Your task to perform on an android device: manage bookmarks in the chrome app Image 0: 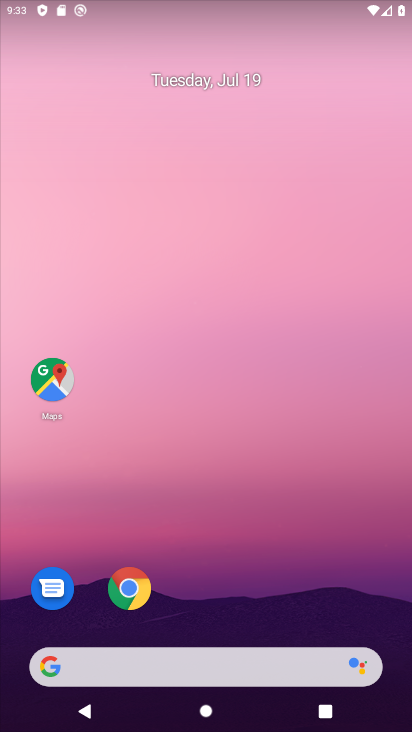
Step 0: drag from (227, 566) to (218, 111)
Your task to perform on an android device: manage bookmarks in the chrome app Image 1: 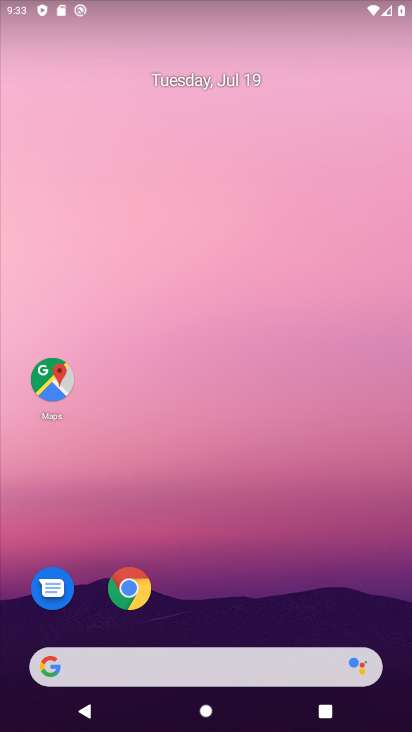
Step 1: drag from (214, 430) to (201, 89)
Your task to perform on an android device: manage bookmarks in the chrome app Image 2: 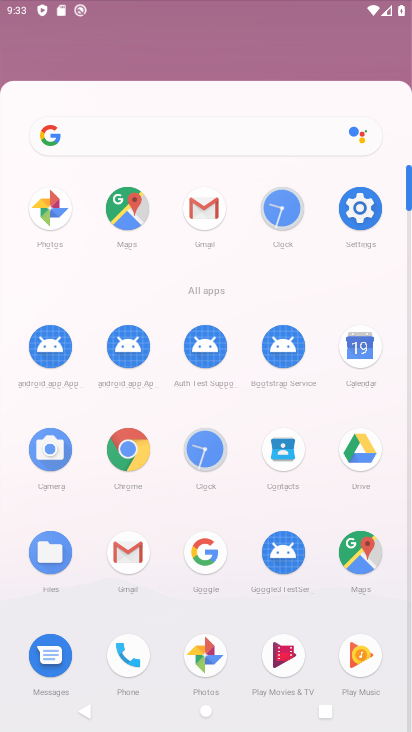
Step 2: drag from (212, 369) to (204, 18)
Your task to perform on an android device: manage bookmarks in the chrome app Image 3: 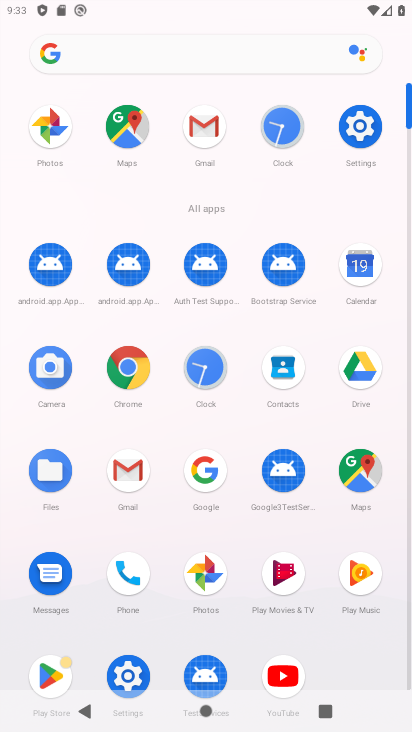
Step 3: click (127, 356)
Your task to perform on an android device: manage bookmarks in the chrome app Image 4: 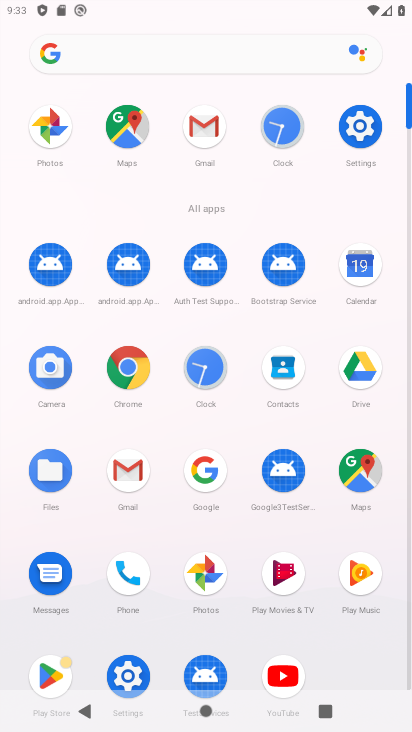
Step 4: click (130, 361)
Your task to perform on an android device: manage bookmarks in the chrome app Image 5: 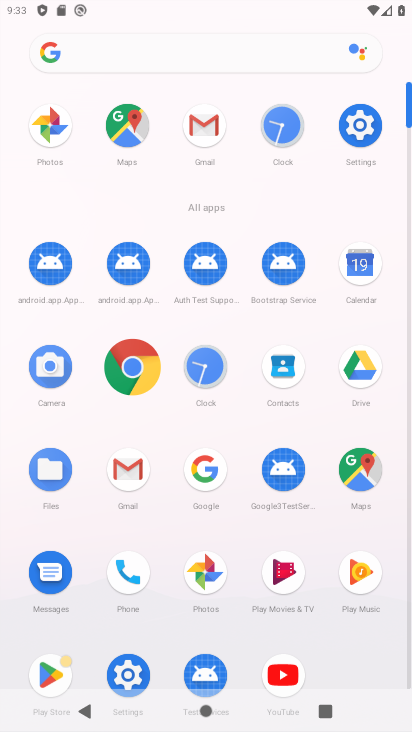
Step 5: click (134, 365)
Your task to perform on an android device: manage bookmarks in the chrome app Image 6: 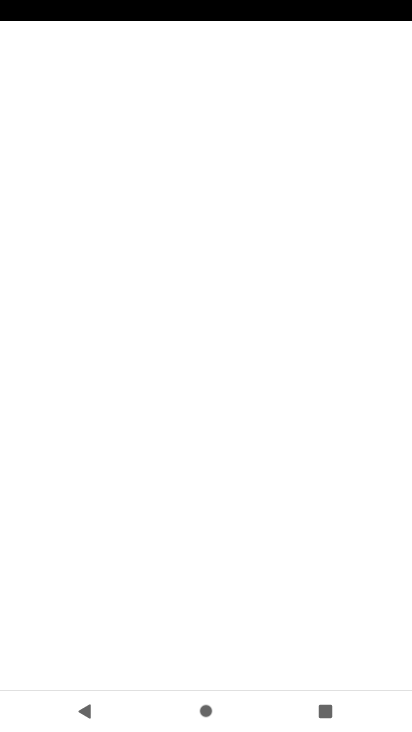
Step 6: click (139, 366)
Your task to perform on an android device: manage bookmarks in the chrome app Image 7: 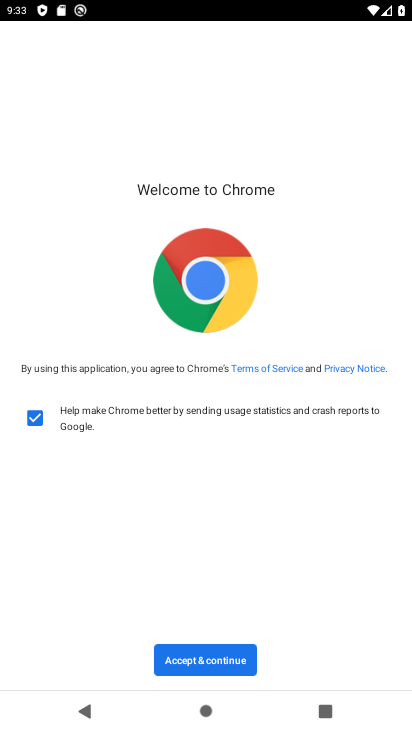
Step 7: click (213, 659)
Your task to perform on an android device: manage bookmarks in the chrome app Image 8: 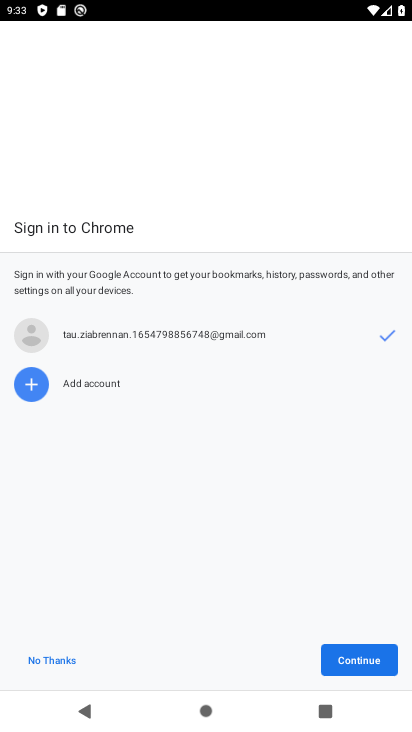
Step 8: click (368, 669)
Your task to perform on an android device: manage bookmarks in the chrome app Image 9: 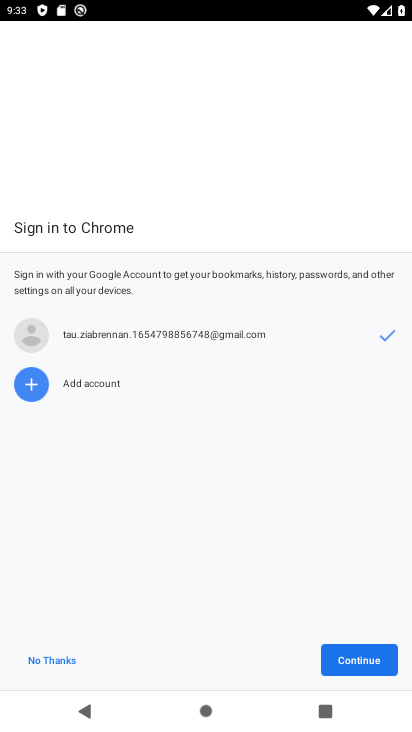
Step 9: click (368, 669)
Your task to perform on an android device: manage bookmarks in the chrome app Image 10: 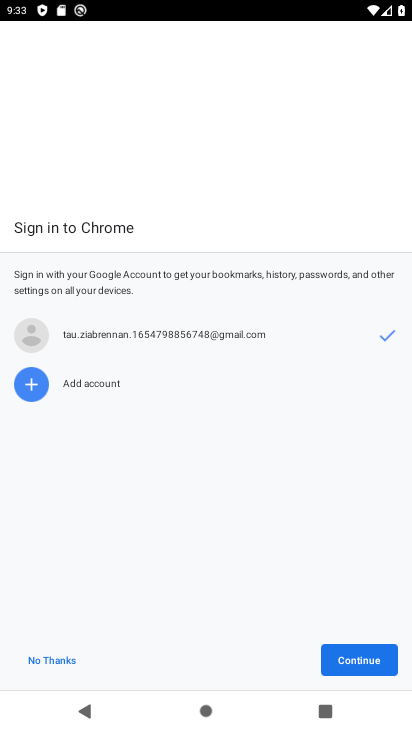
Step 10: click (369, 666)
Your task to perform on an android device: manage bookmarks in the chrome app Image 11: 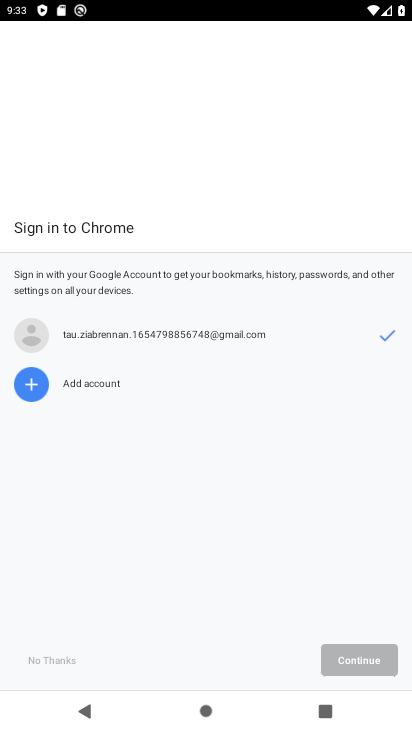
Step 11: click (369, 666)
Your task to perform on an android device: manage bookmarks in the chrome app Image 12: 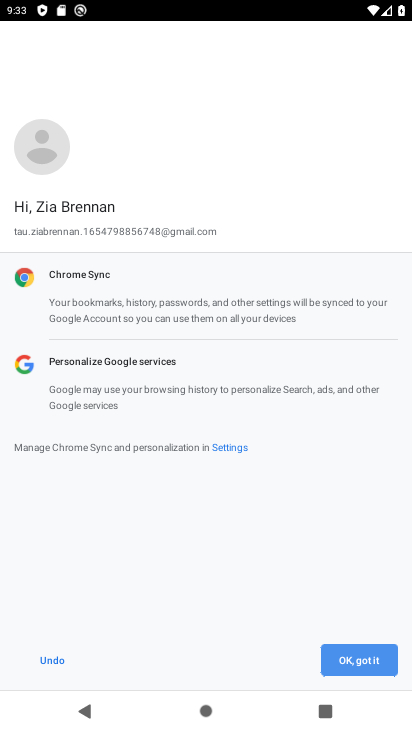
Step 12: click (377, 661)
Your task to perform on an android device: manage bookmarks in the chrome app Image 13: 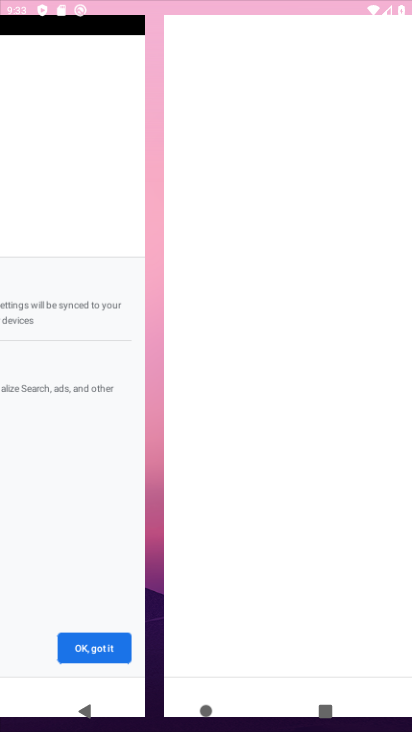
Step 13: click (377, 661)
Your task to perform on an android device: manage bookmarks in the chrome app Image 14: 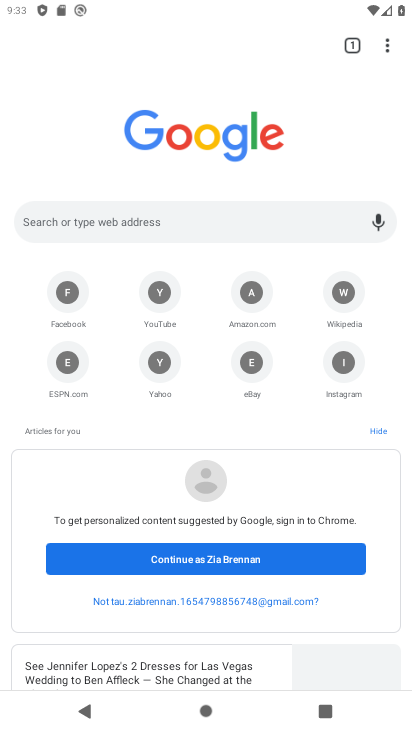
Step 14: drag from (392, 49) to (251, 184)
Your task to perform on an android device: manage bookmarks in the chrome app Image 15: 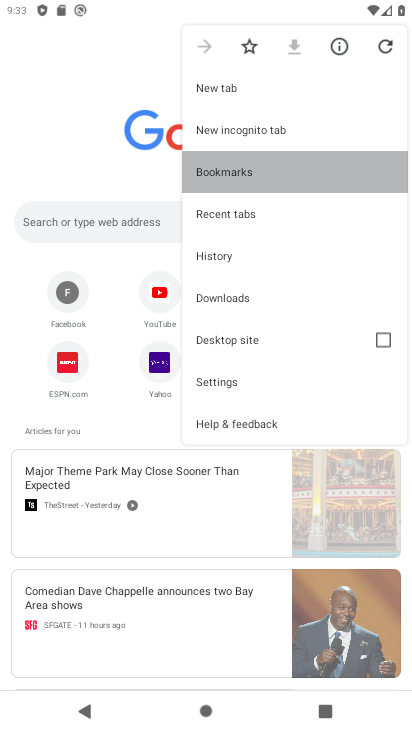
Step 15: click (251, 184)
Your task to perform on an android device: manage bookmarks in the chrome app Image 16: 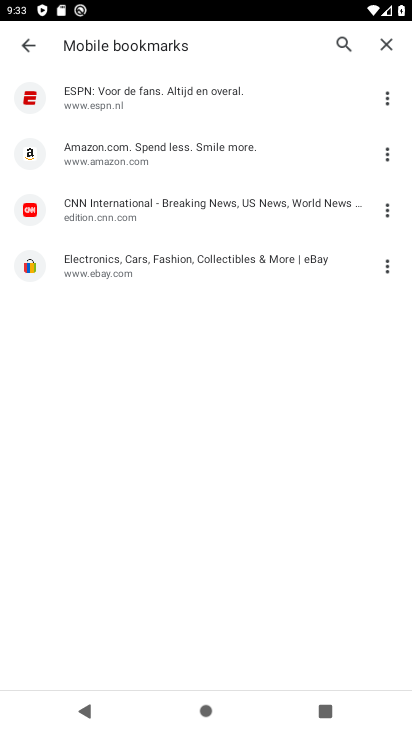
Step 16: click (381, 100)
Your task to perform on an android device: manage bookmarks in the chrome app Image 17: 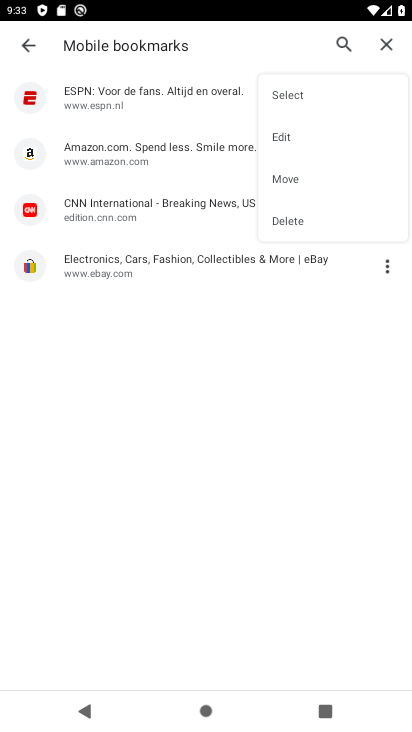
Step 17: click (285, 217)
Your task to perform on an android device: manage bookmarks in the chrome app Image 18: 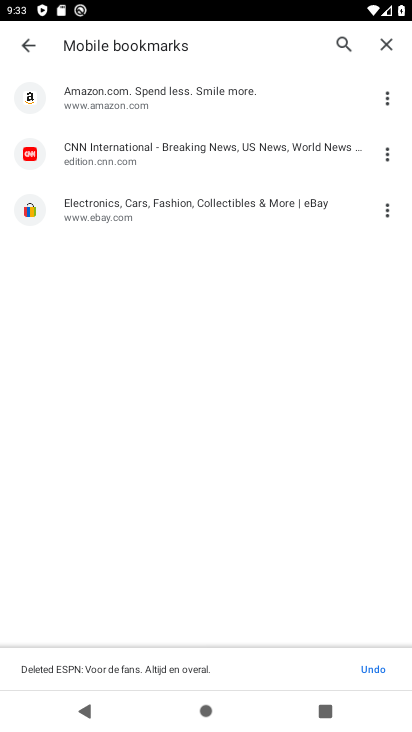
Step 18: task complete